Your task to perform on an android device: Open privacy settings Image 0: 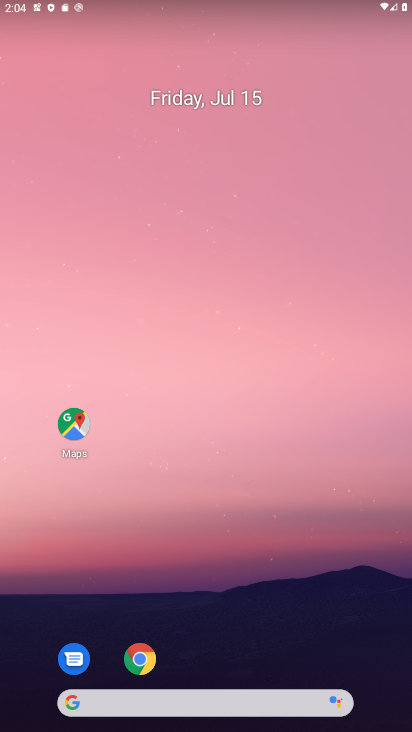
Step 0: drag from (231, 681) to (232, 293)
Your task to perform on an android device: Open privacy settings Image 1: 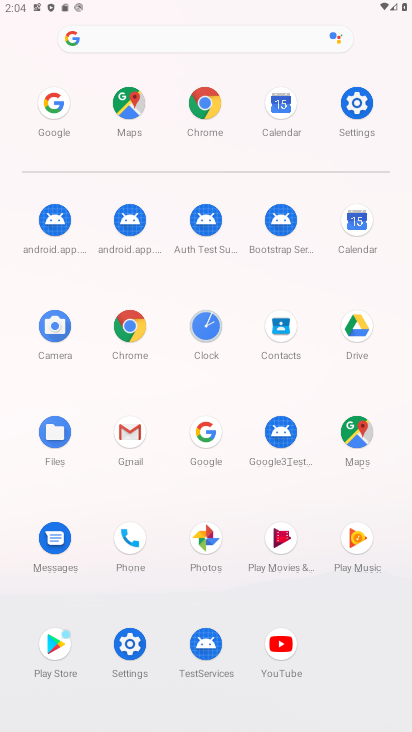
Step 1: click (369, 102)
Your task to perform on an android device: Open privacy settings Image 2: 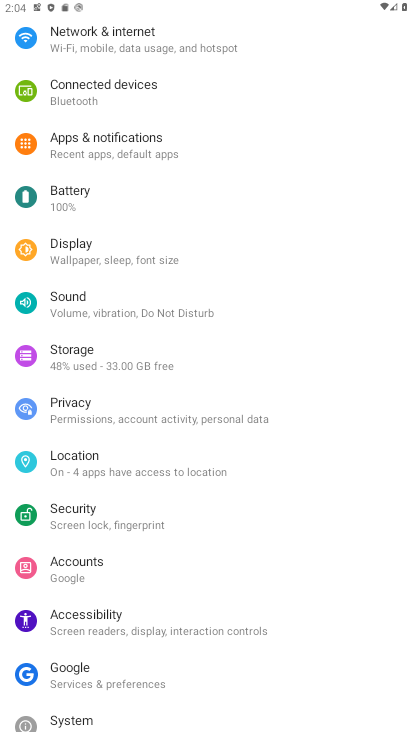
Step 2: click (116, 401)
Your task to perform on an android device: Open privacy settings Image 3: 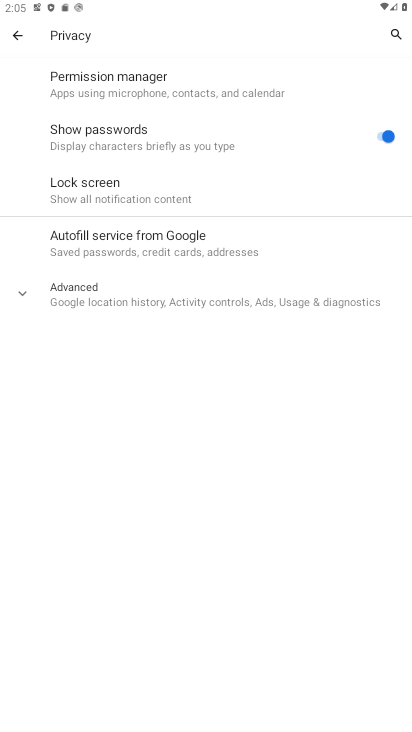
Step 3: task complete